Your task to perform on an android device: toggle airplane mode Image 0: 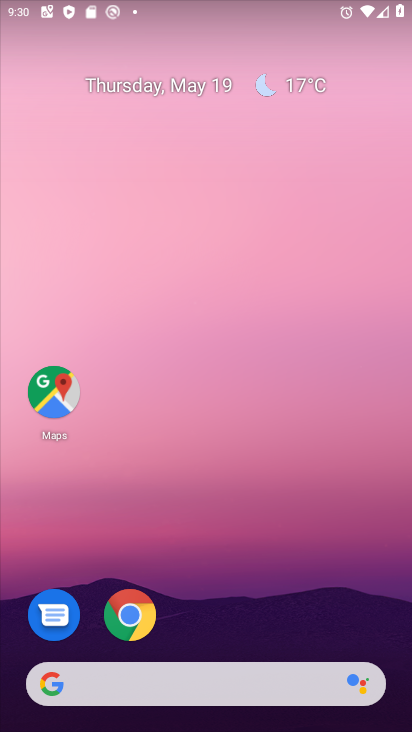
Step 0: drag from (330, 7) to (360, 525)
Your task to perform on an android device: toggle airplane mode Image 1: 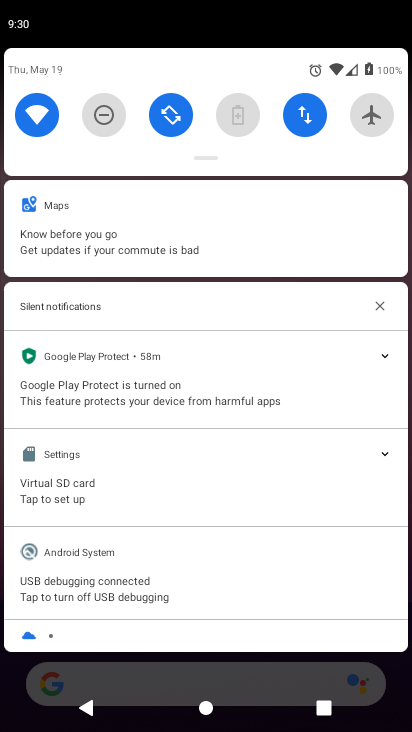
Step 1: click (363, 112)
Your task to perform on an android device: toggle airplane mode Image 2: 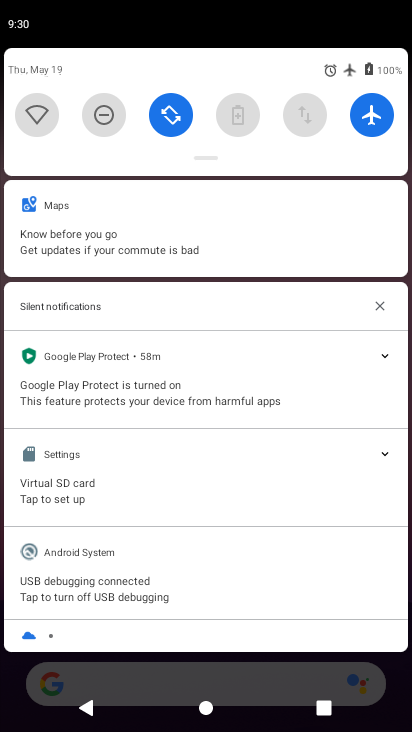
Step 2: task complete